Your task to perform on an android device: Go to Reddit.com Image 0: 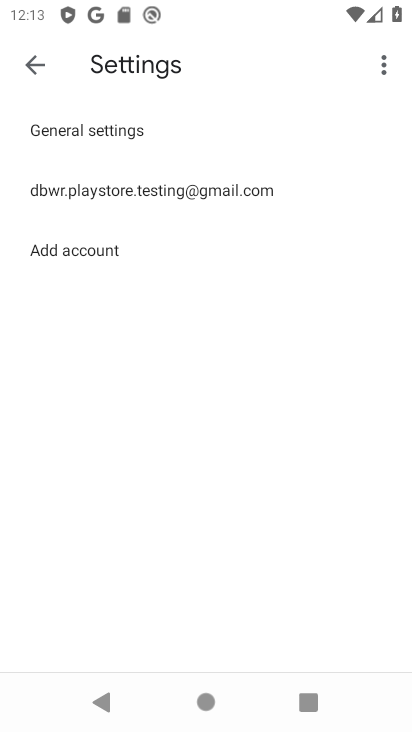
Step 0: click (24, 69)
Your task to perform on an android device: Go to Reddit.com Image 1: 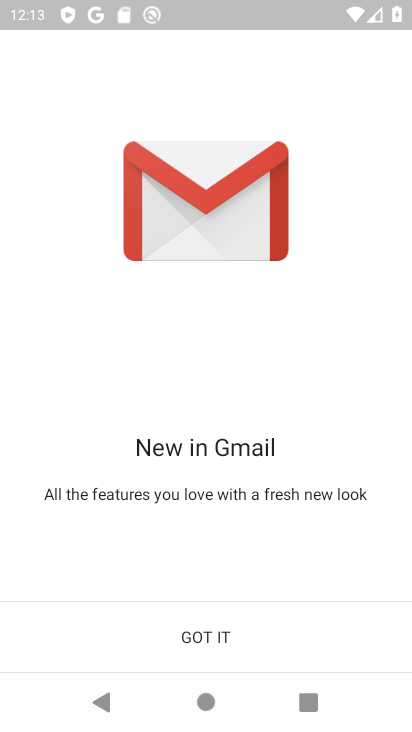
Step 1: click (181, 647)
Your task to perform on an android device: Go to Reddit.com Image 2: 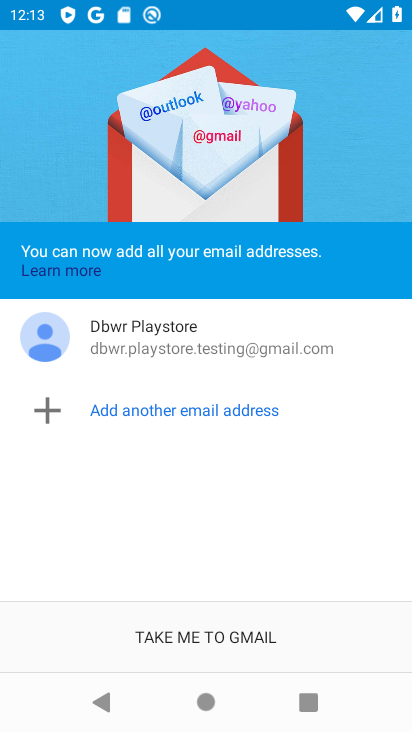
Step 2: press home button
Your task to perform on an android device: Go to Reddit.com Image 3: 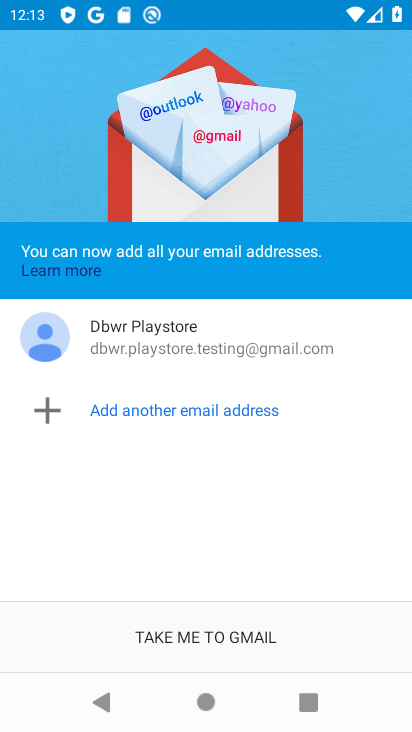
Step 3: press home button
Your task to perform on an android device: Go to Reddit.com Image 4: 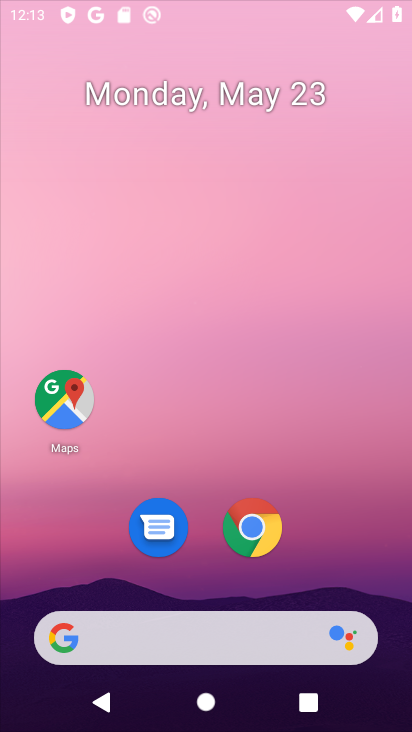
Step 4: press back button
Your task to perform on an android device: Go to Reddit.com Image 5: 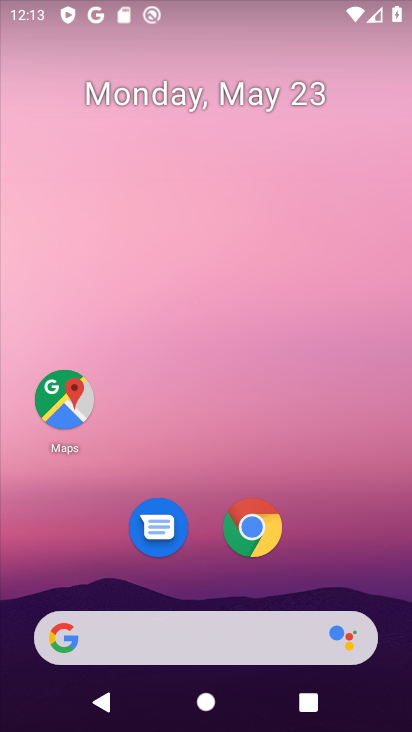
Step 5: press back button
Your task to perform on an android device: Go to Reddit.com Image 6: 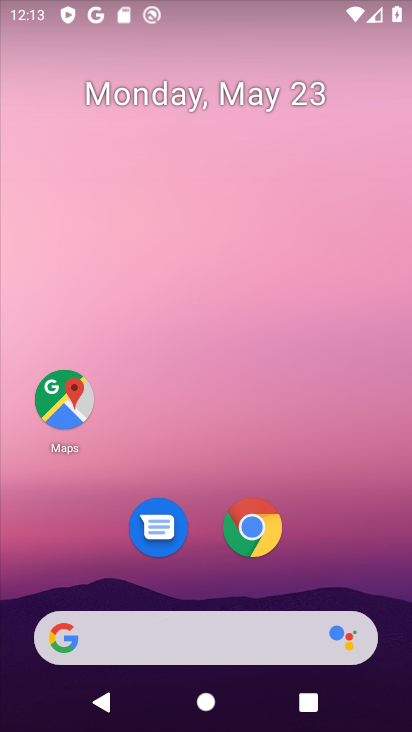
Step 6: press back button
Your task to perform on an android device: Go to Reddit.com Image 7: 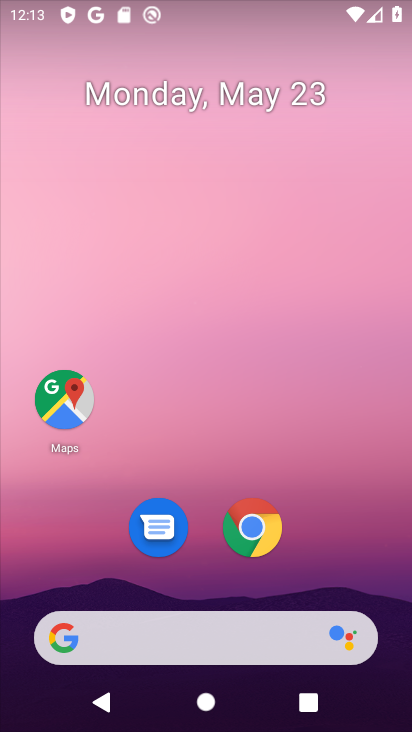
Step 7: drag from (240, 696) to (142, 131)
Your task to perform on an android device: Go to Reddit.com Image 8: 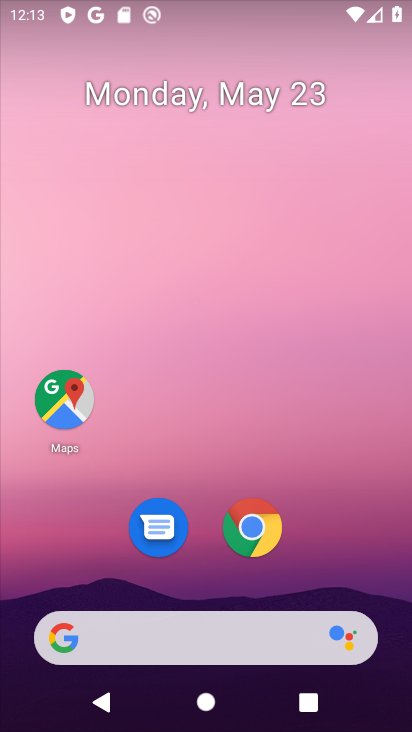
Step 8: drag from (241, 678) to (131, 6)
Your task to perform on an android device: Go to Reddit.com Image 9: 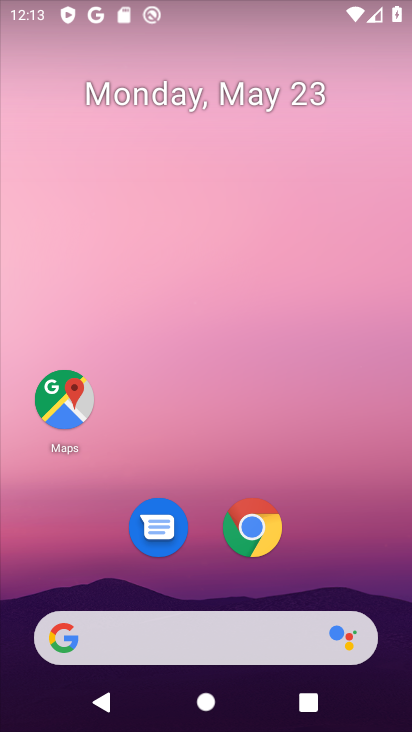
Step 9: drag from (179, 527) to (188, 105)
Your task to perform on an android device: Go to Reddit.com Image 10: 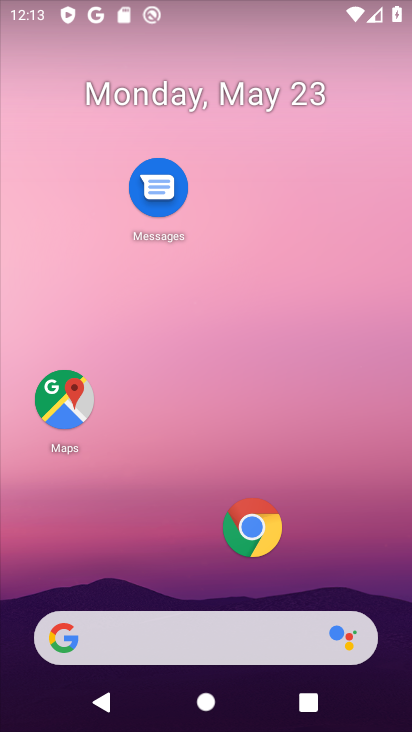
Step 10: drag from (303, 707) to (161, 71)
Your task to perform on an android device: Go to Reddit.com Image 11: 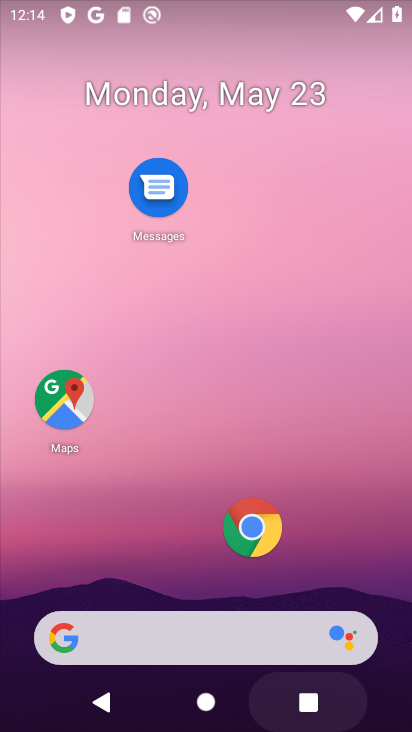
Step 11: drag from (242, 665) to (221, 229)
Your task to perform on an android device: Go to Reddit.com Image 12: 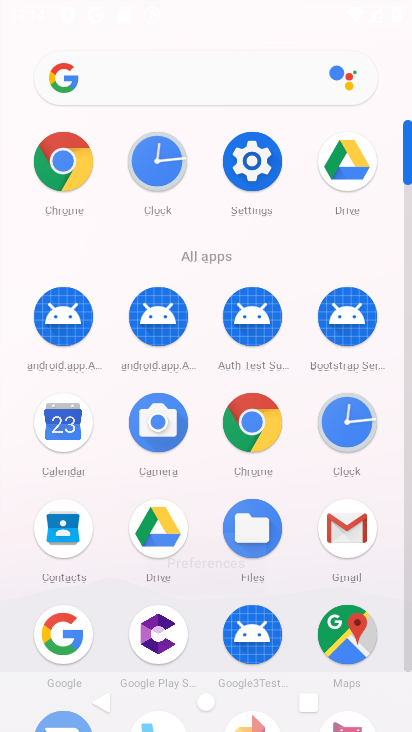
Step 12: drag from (277, 710) to (247, 14)
Your task to perform on an android device: Go to Reddit.com Image 13: 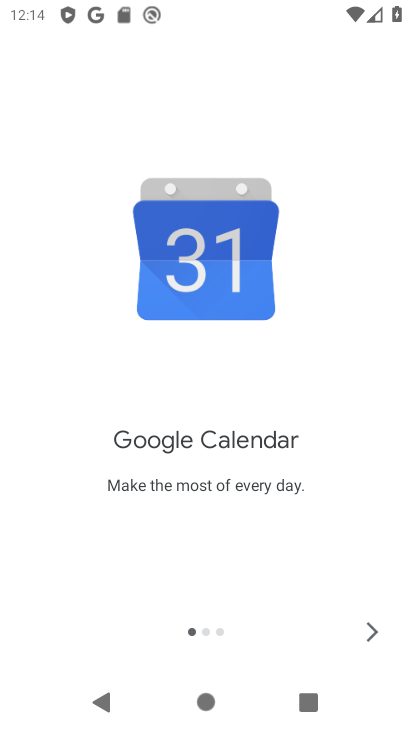
Step 13: click (373, 637)
Your task to perform on an android device: Go to Reddit.com Image 14: 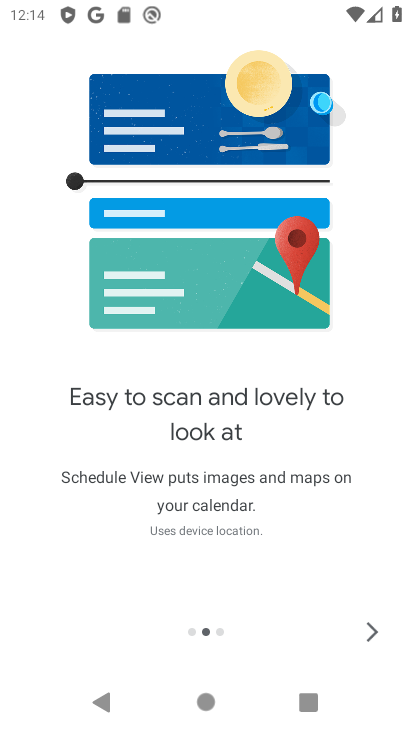
Step 14: click (373, 637)
Your task to perform on an android device: Go to Reddit.com Image 15: 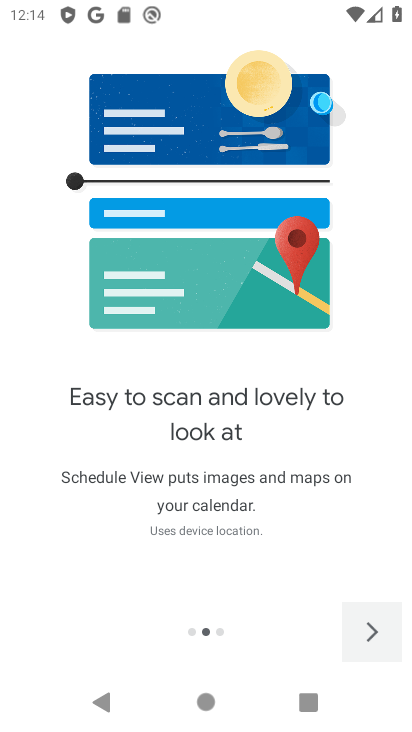
Step 15: click (373, 636)
Your task to perform on an android device: Go to Reddit.com Image 16: 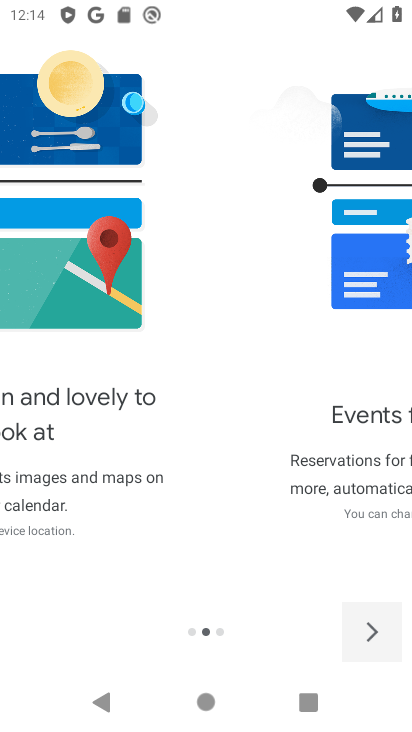
Step 16: click (373, 636)
Your task to perform on an android device: Go to Reddit.com Image 17: 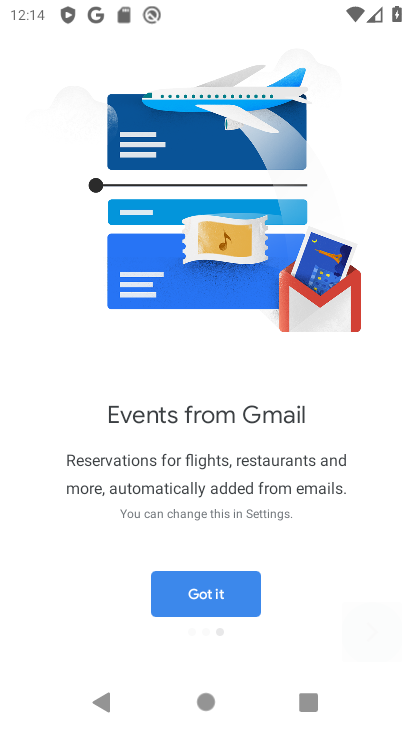
Step 17: click (372, 634)
Your task to perform on an android device: Go to Reddit.com Image 18: 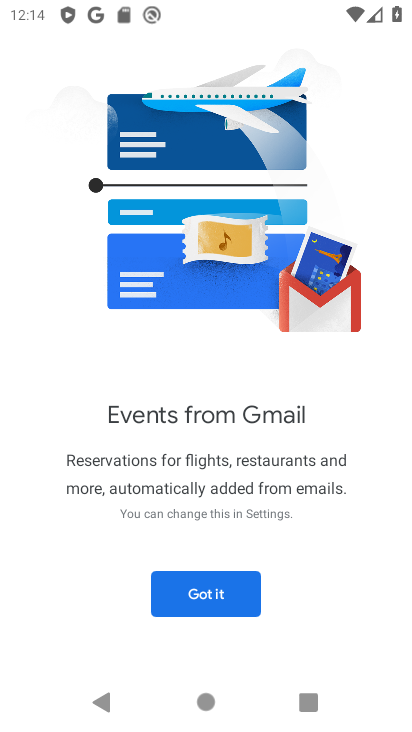
Step 18: click (203, 586)
Your task to perform on an android device: Go to Reddit.com Image 19: 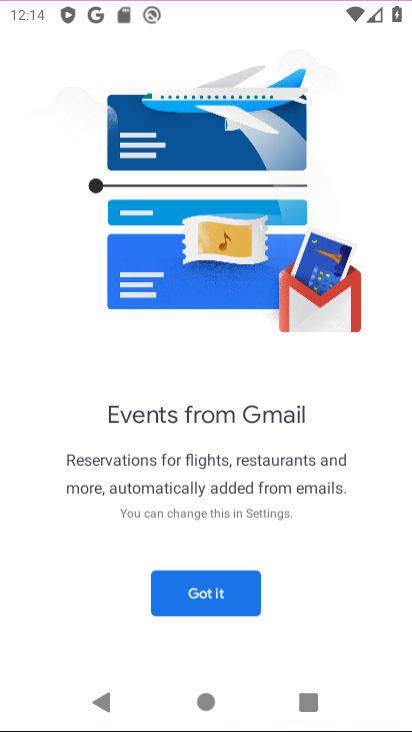
Step 19: click (209, 591)
Your task to perform on an android device: Go to Reddit.com Image 20: 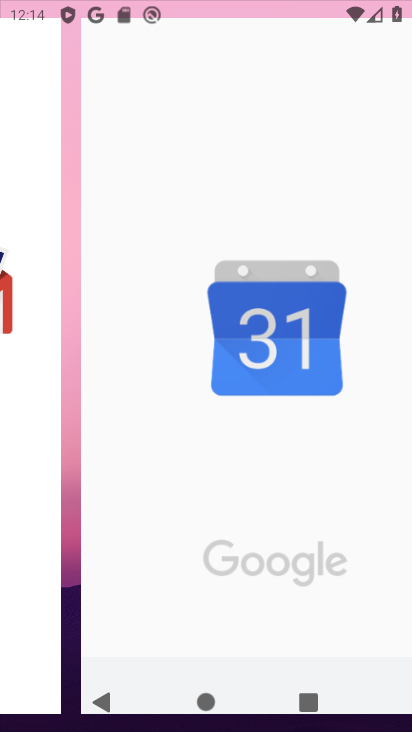
Step 20: click (209, 591)
Your task to perform on an android device: Go to Reddit.com Image 21: 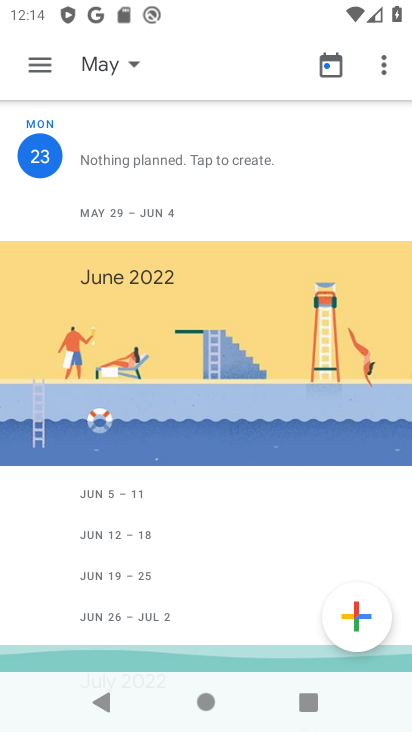
Step 21: press back button
Your task to perform on an android device: Go to Reddit.com Image 22: 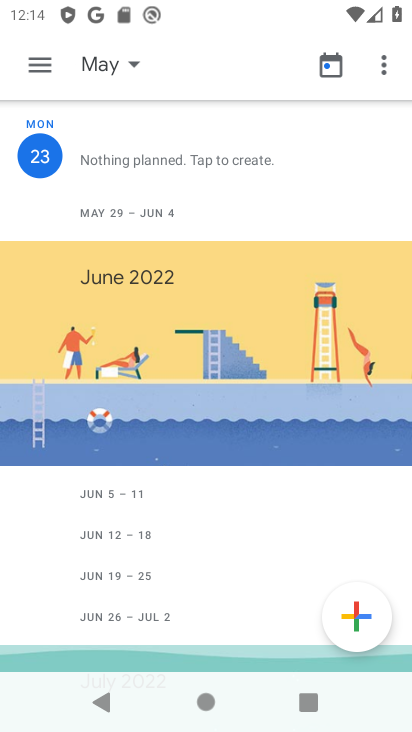
Step 22: press back button
Your task to perform on an android device: Go to Reddit.com Image 23: 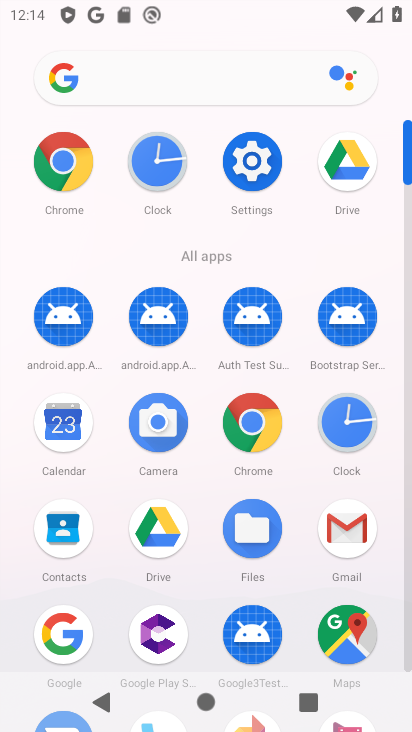
Step 23: press back button
Your task to perform on an android device: Go to Reddit.com Image 24: 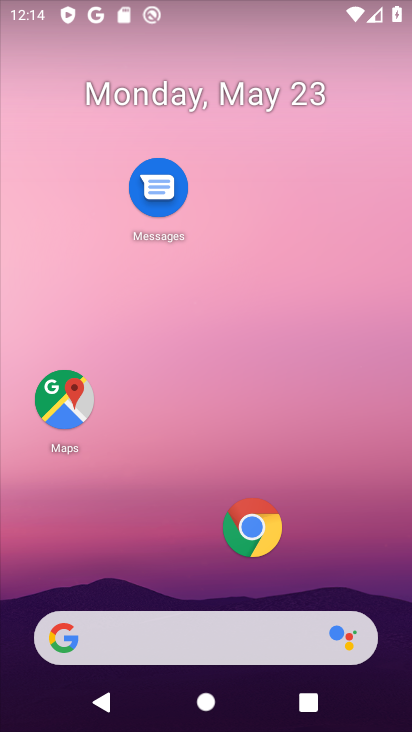
Step 24: press home button
Your task to perform on an android device: Go to Reddit.com Image 25: 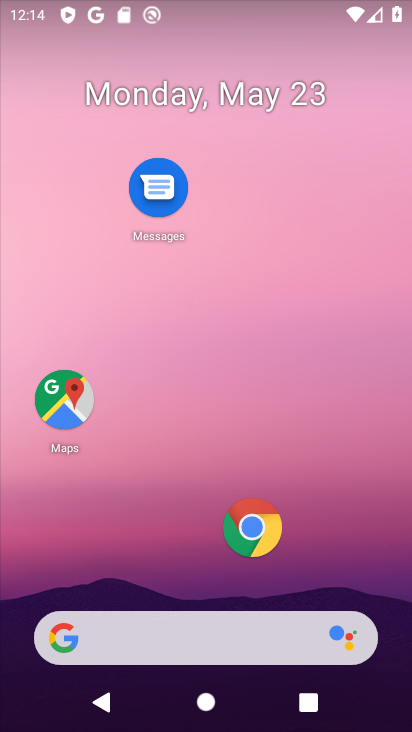
Step 25: drag from (256, 668) to (107, 42)
Your task to perform on an android device: Go to Reddit.com Image 26: 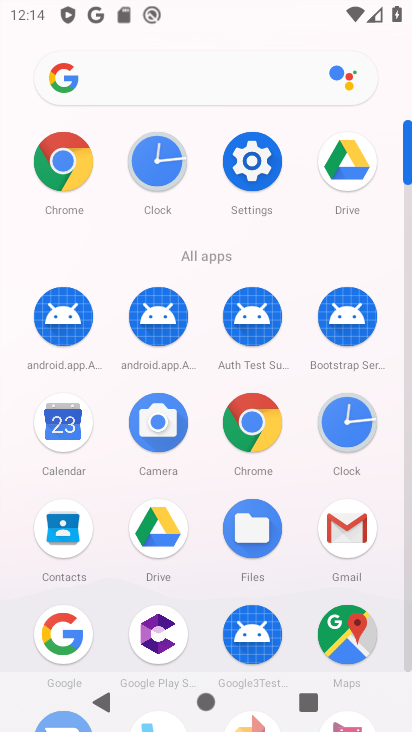
Step 26: click (62, 156)
Your task to perform on an android device: Go to Reddit.com Image 27: 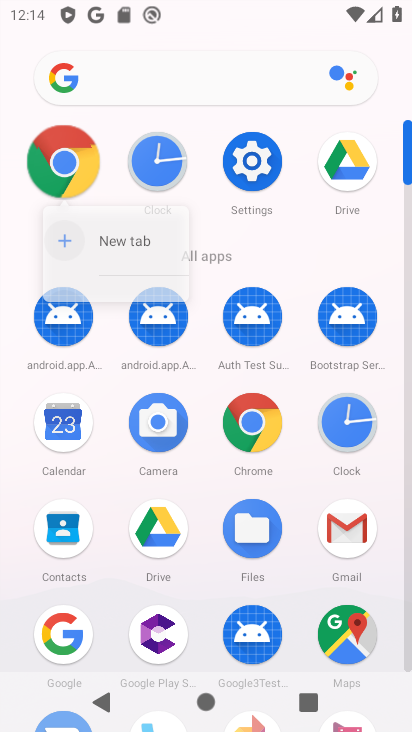
Step 27: click (73, 181)
Your task to perform on an android device: Go to Reddit.com Image 28: 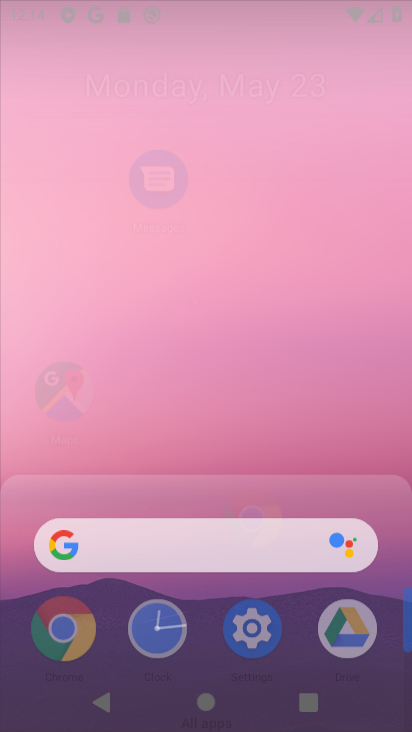
Step 28: click (71, 184)
Your task to perform on an android device: Go to Reddit.com Image 29: 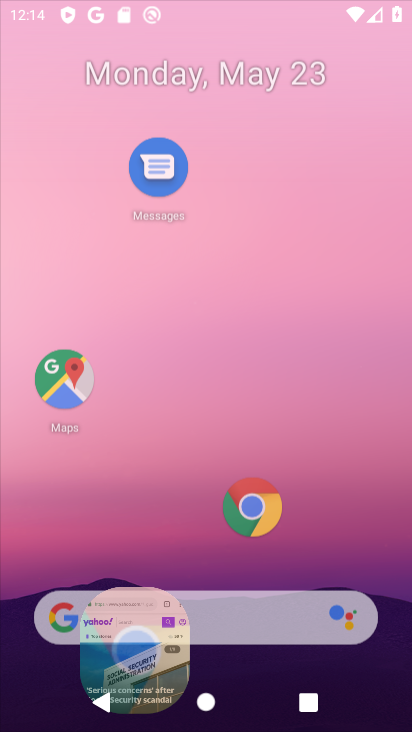
Step 29: click (70, 184)
Your task to perform on an android device: Go to Reddit.com Image 30: 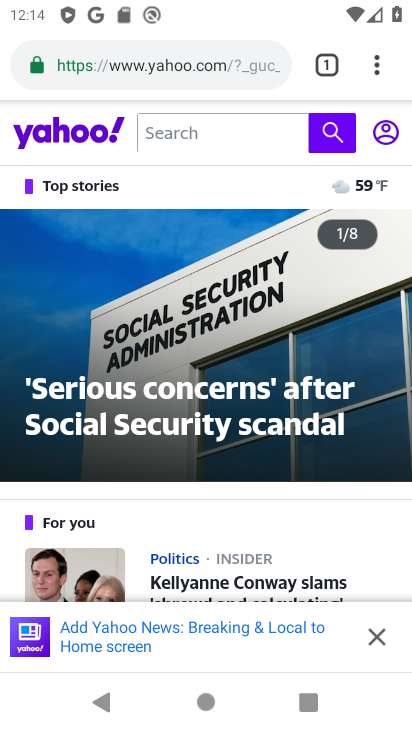
Step 30: drag from (378, 69) to (128, 121)
Your task to perform on an android device: Go to Reddit.com Image 31: 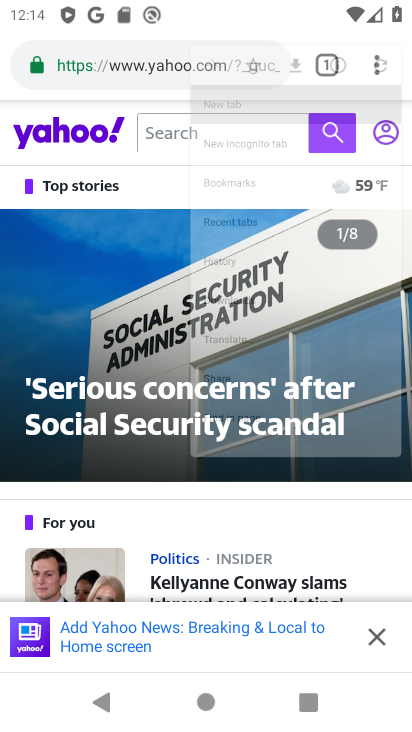
Step 31: click (139, 129)
Your task to perform on an android device: Go to Reddit.com Image 32: 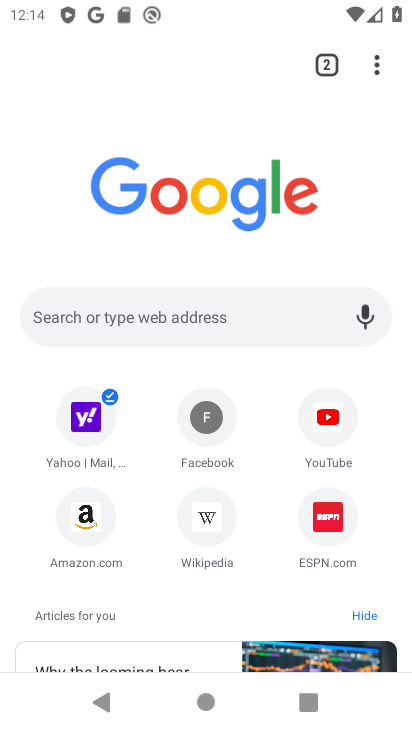
Step 32: click (88, 318)
Your task to perform on an android device: Go to Reddit.com Image 33: 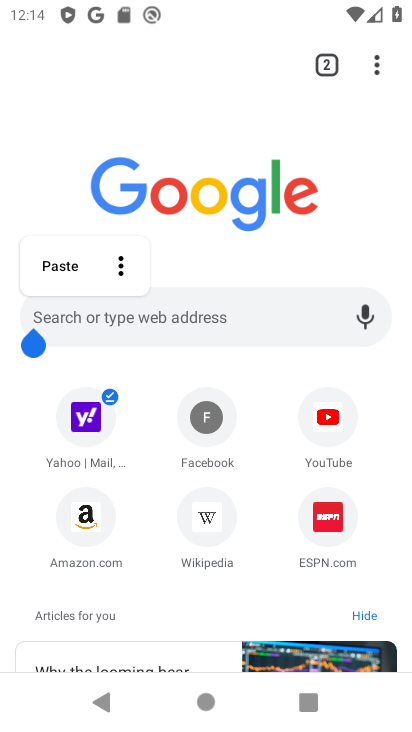
Step 33: click (55, 313)
Your task to perform on an android device: Go to Reddit.com Image 34: 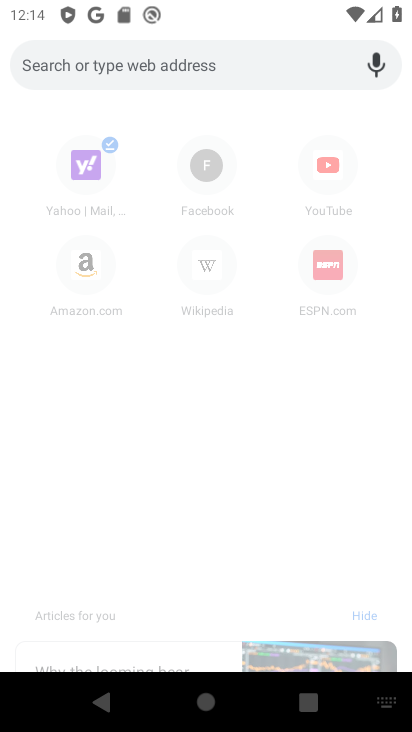
Step 34: type "reddit.com"
Your task to perform on an android device: Go to Reddit.com Image 35: 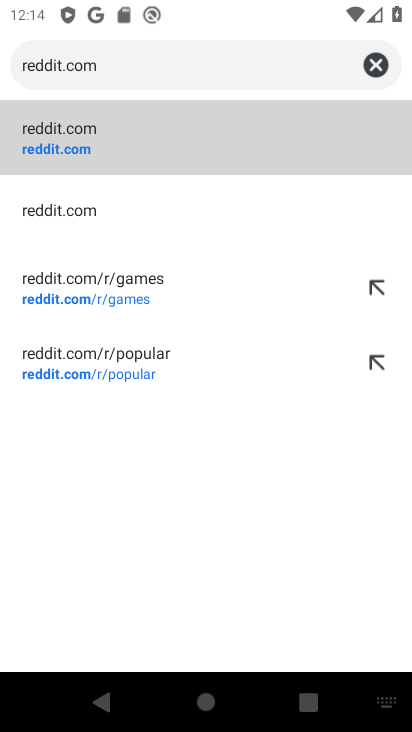
Step 35: click (60, 140)
Your task to perform on an android device: Go to Reddit.com Image 36: 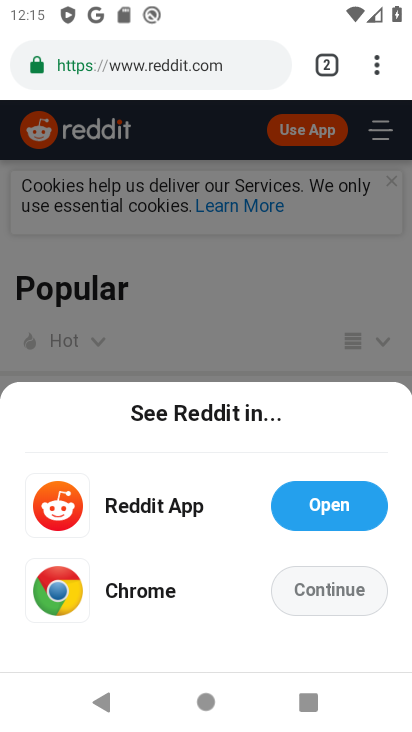
Step 36: task complete